Your task to perform on an android device: turn off translation in the chrome app Image 0: 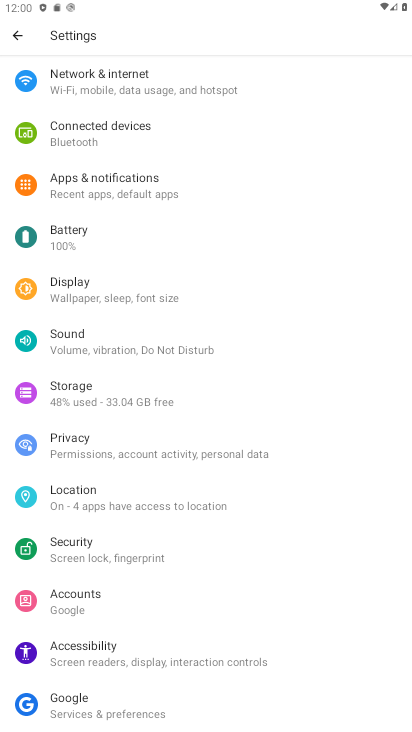
Step 0: press home button
Your task to perform on an android device: turn off translation in the chrome app Image 1: 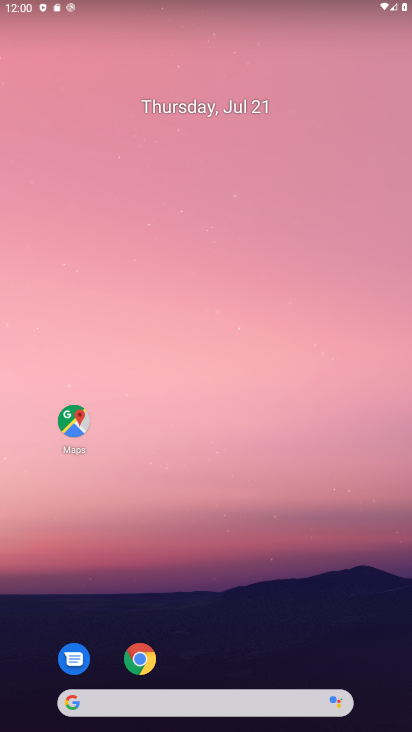
Step 1: click (139, 660)
Your task to perform on an android device: turn off translation in the chrome app Image 2: 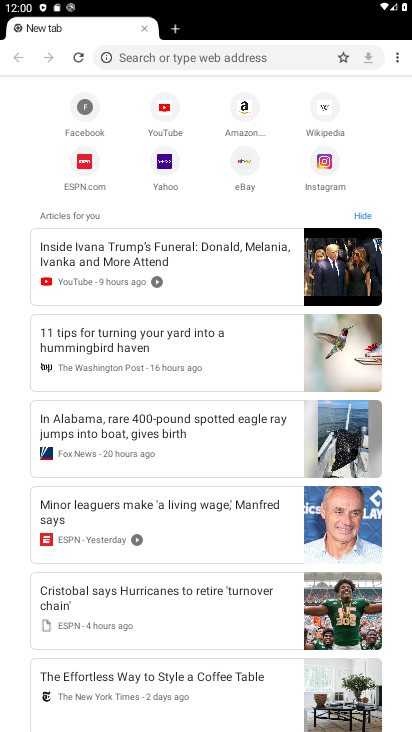
Step 2: click (395, 57)
Your task to perform on an android device: turn off translation in the chrome app Image 3: 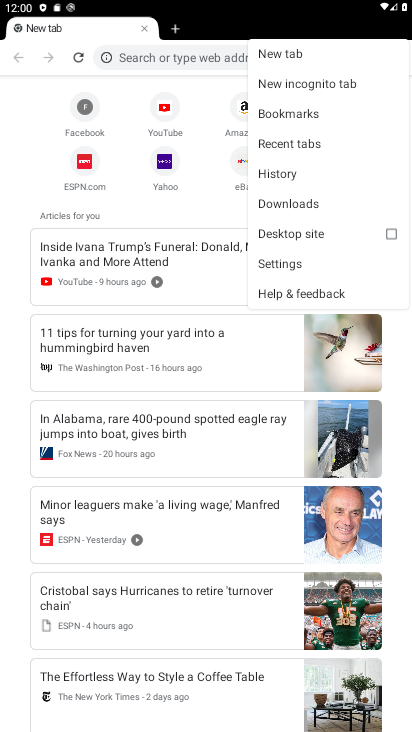
Step 3: click (274, 258)
Your task to perform on an android device: turn off translation in the chrome app Image 4: 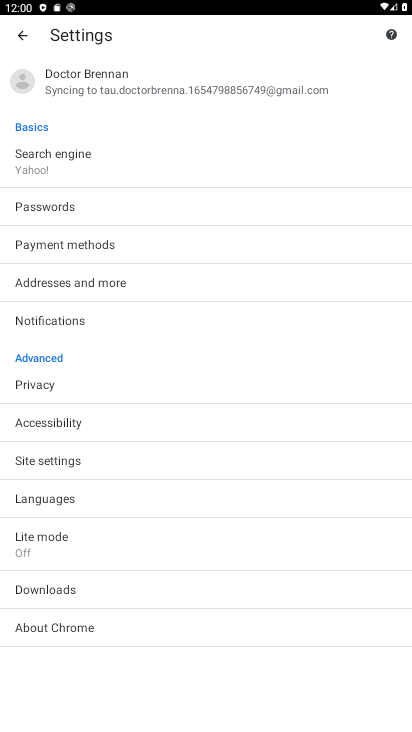
Step 4: click (35, 503)
Your task to perform on an android device: turn off translation in the chrome app Image 5: 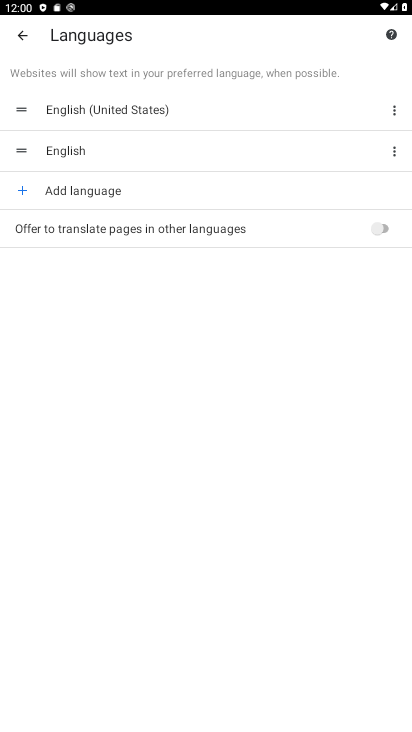
Step 5: task complete